Your task to perform on an android device: open chrome and create a bookmark for the current page Image 0: 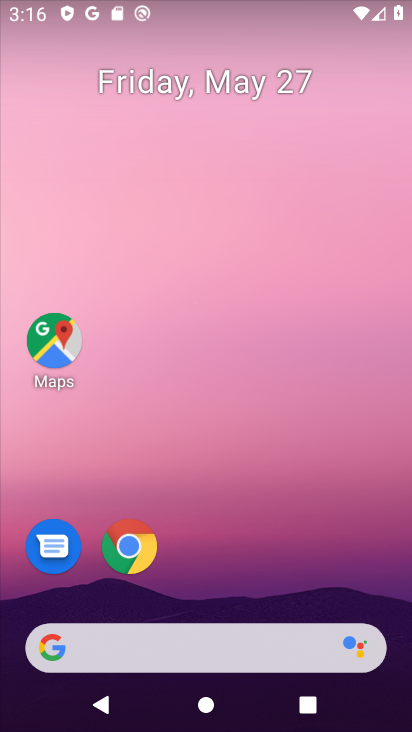
Step 0: click (132, 560)
Your task to perform on an android device: open chrome and create a bookmark for the current page Image 1: 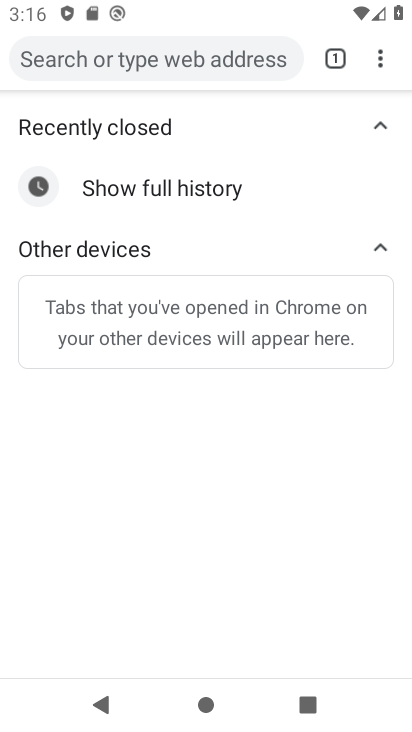
Step 1: task complete